Your task to perform on an android device: Search for sushi restaurants on Maps Image 0: 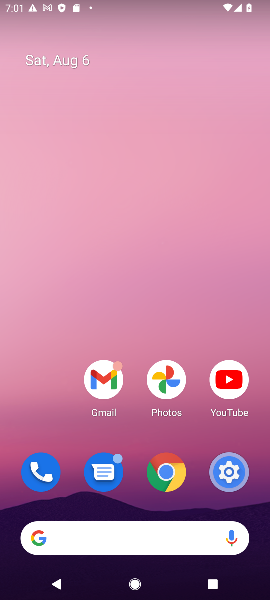
Step 0: drag from (187, 376) to (182, 111)
Your task to perform on an android device: Search for sushi restaurants on Maps Image 1: 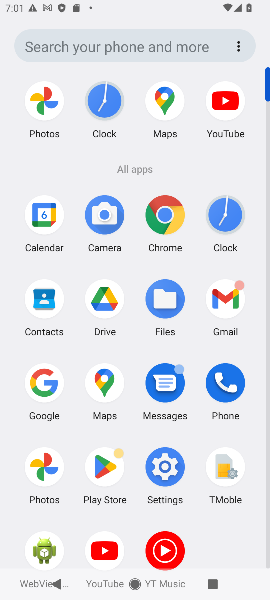
Step 1: click (102, 377)
Your task to perform on an android device: Search for sushi restaurants on Maps Image 2: 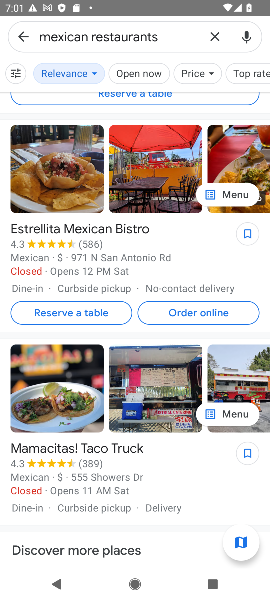
Step 2: click (213, 35)
Your task to perform on an android device: Search for sushi restaurants on Maps Image 3: 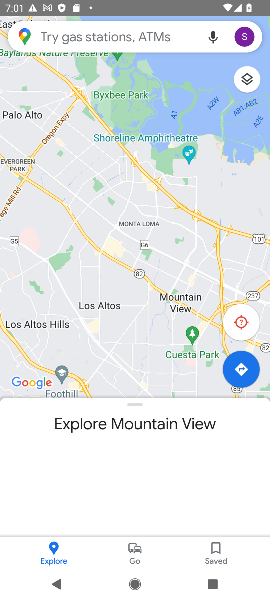
Step 3: click (103, 38)
Your task to perform on an android device: Search for sushi restaurants on Maps Image 4: 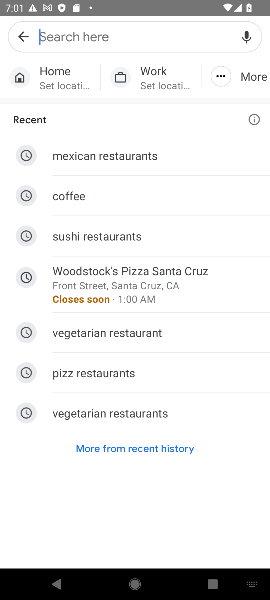
Step 4: type "sushi restaurants"
Your task to perform on an android device: Search for sushi restaurants on Maps Image 5: 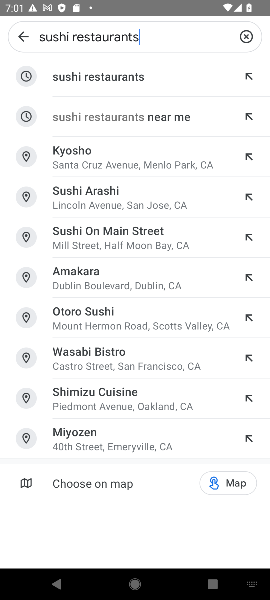
Step 5: click (90, 78)
Your task to perform on an android device: Search for sushi restaurants on Maps Image 6: 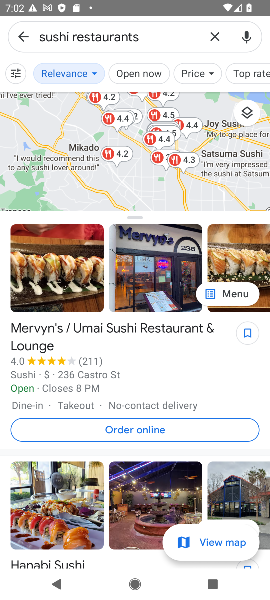
Step 6: task complete